Your task to perform on an android device: add a contact in the contacts app Image 0: 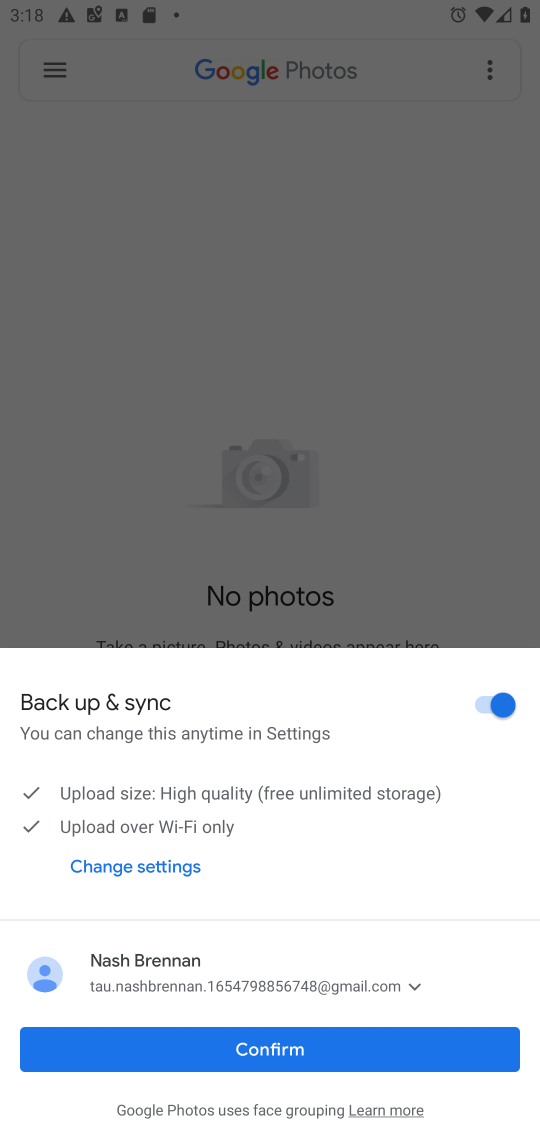
Step 0: press home button
Your task to perform on an android device: add a contact in the contacts app Image 1: 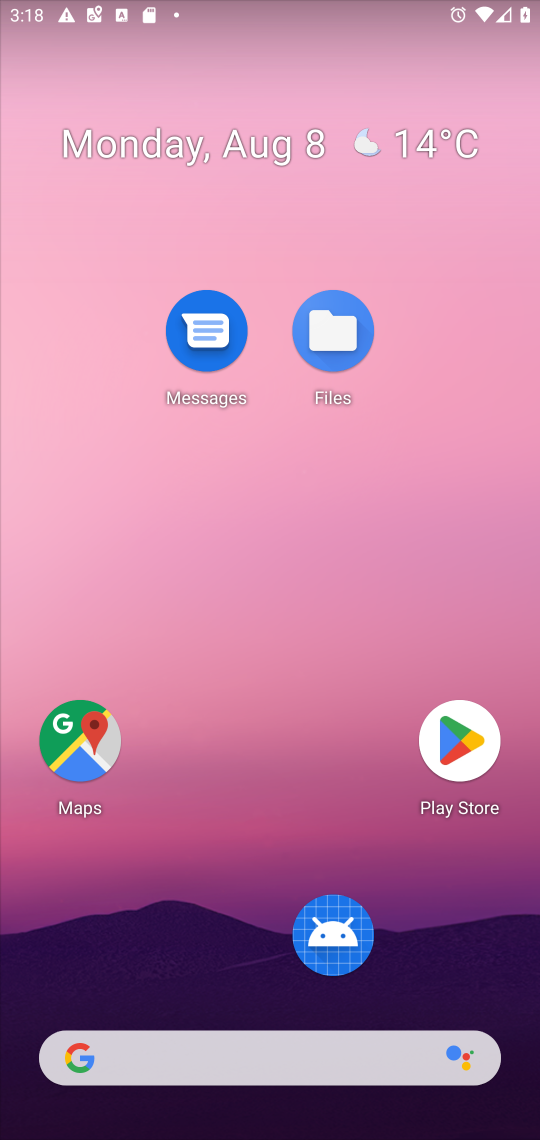
Step 1: drag from (238, 1046) to (312, 108)
Your task to perform on an android device: add a contact in the contacts app Image 2: 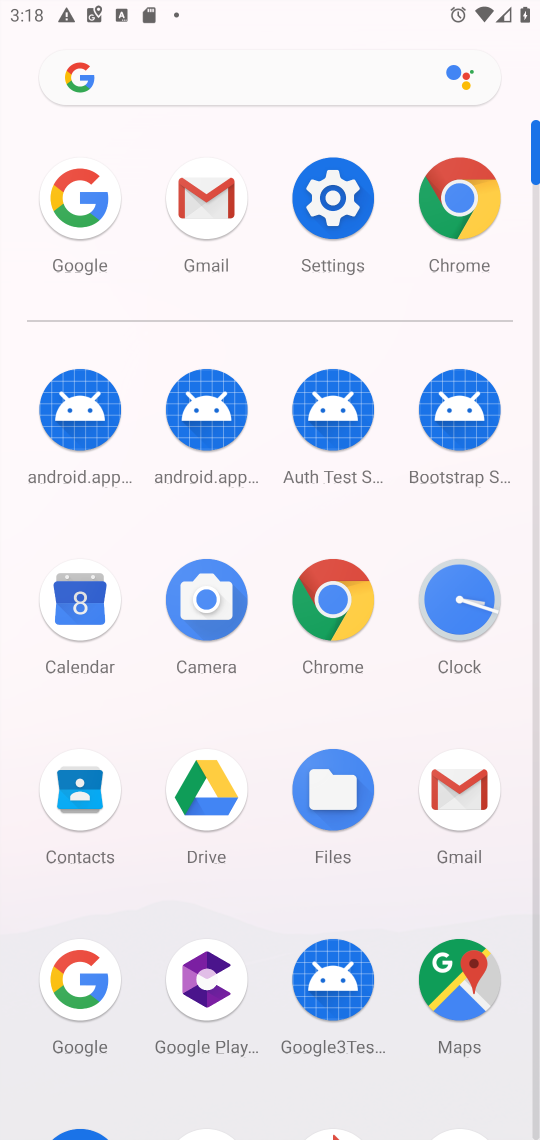
Step 2: click (51, 783)
Your task to perform on an android device: add a contact in the contacts app Image 3: 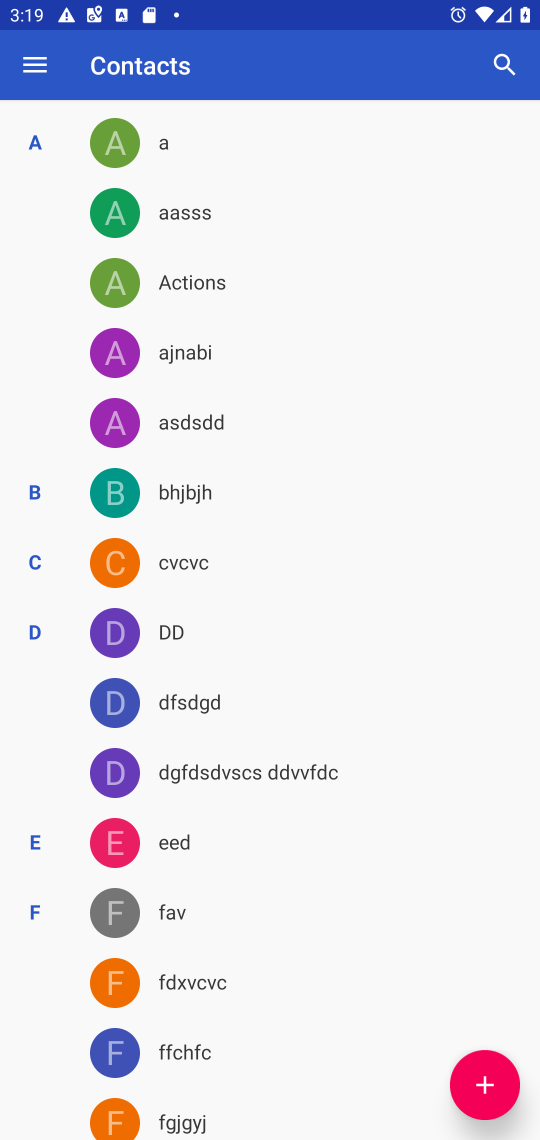
Step 3: click (482, 1078)
Your task to perform on an android device: add a contact in the contacts app Image 4: 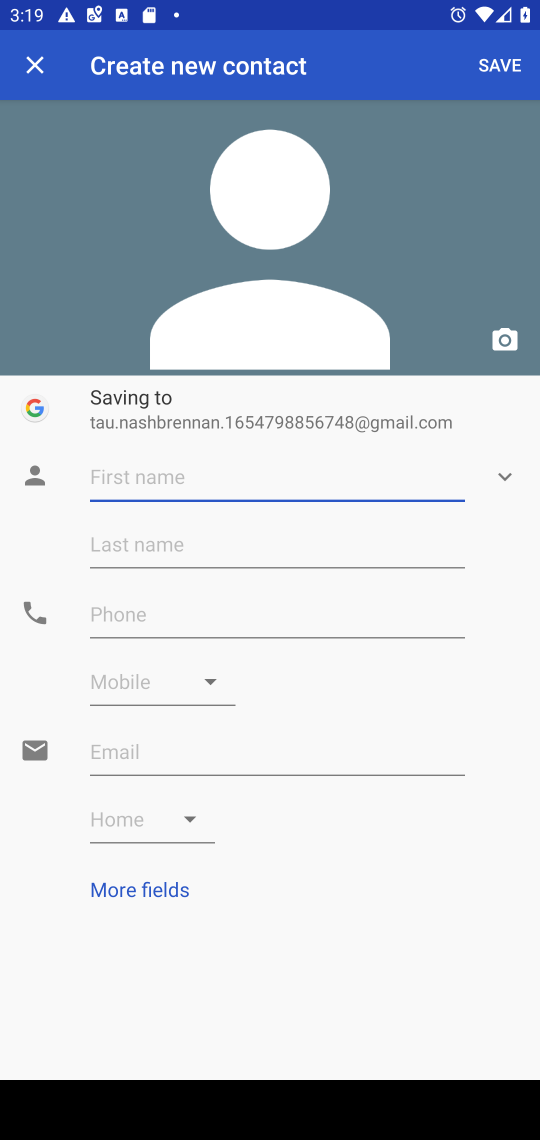
Step 4: type "ghdhgfj"
Your task to perform on an android device: add a contact in the contacts app Image 5: 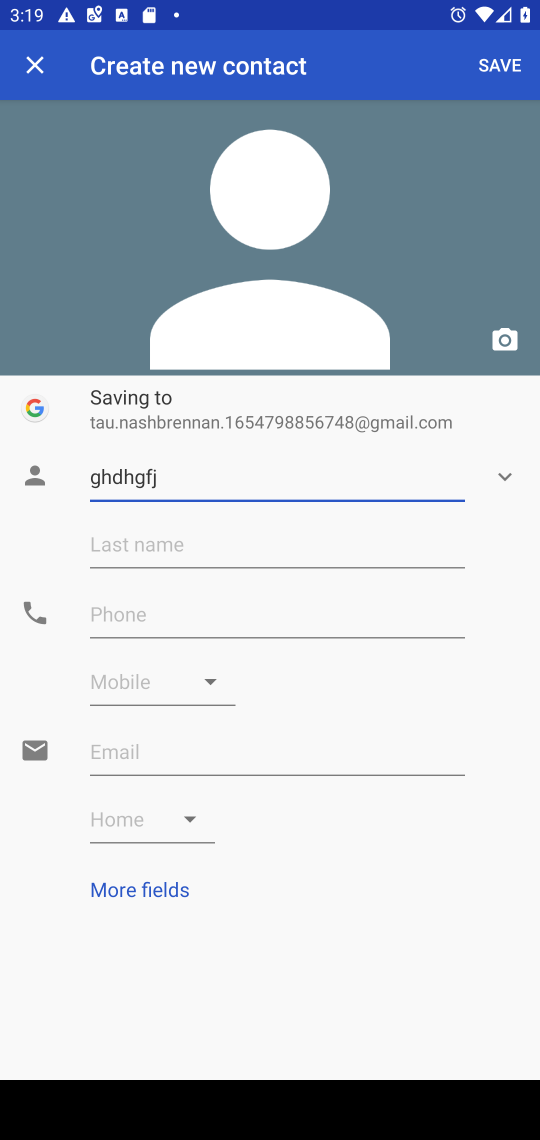
Step 5: click (292, 628)
Your task to perform on an android device: add a contact in the contacts app Image 6: 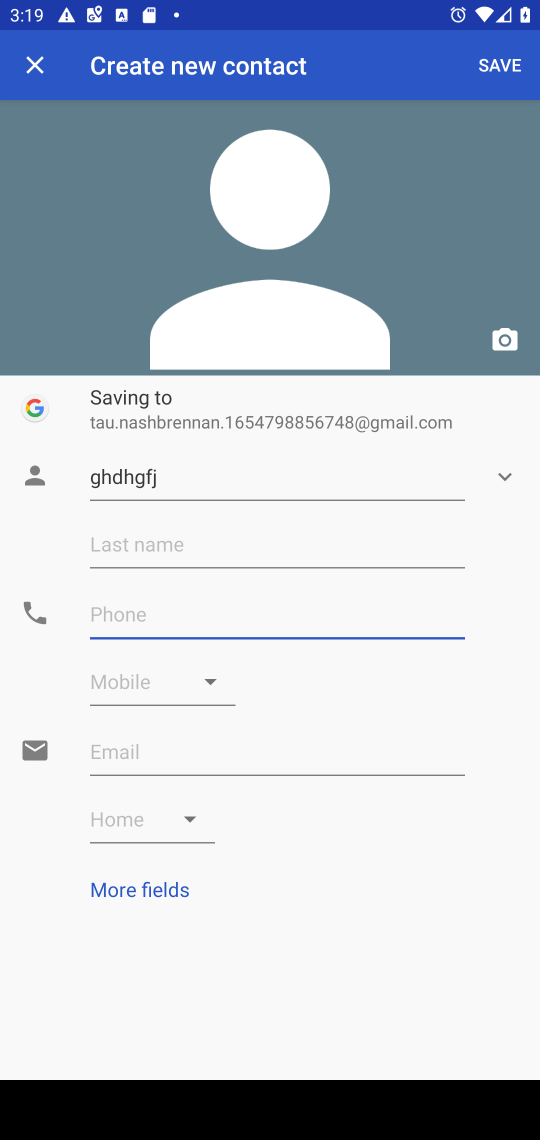
Step 6: click (287, 613)
Your task to perform on an android device: add a contact in the contacts app Image 7: 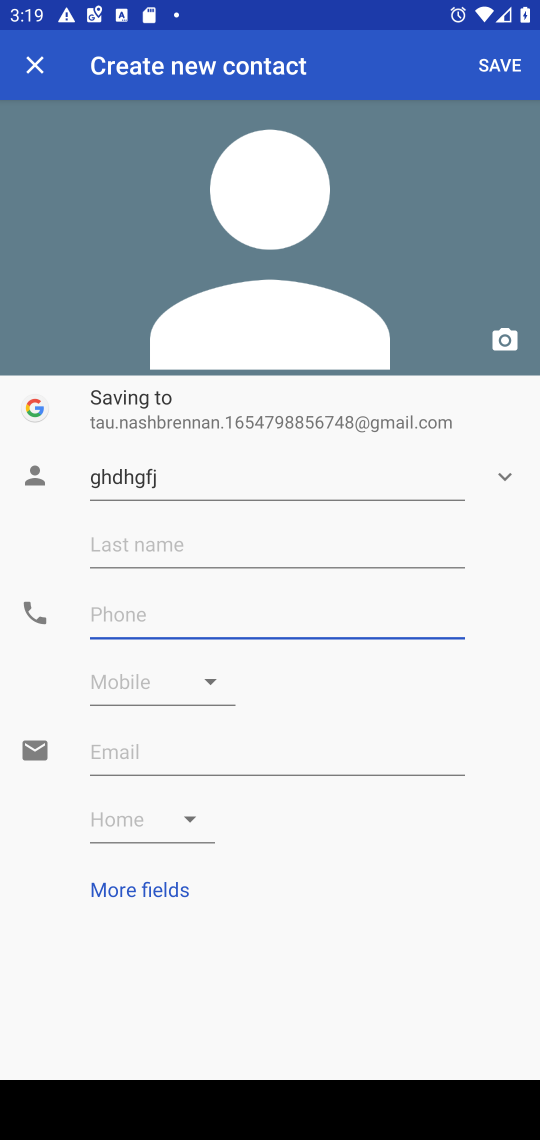
Step 7: type "8976556778"
Your task to perform on an android device: add a contact in the contacts app Image 8: 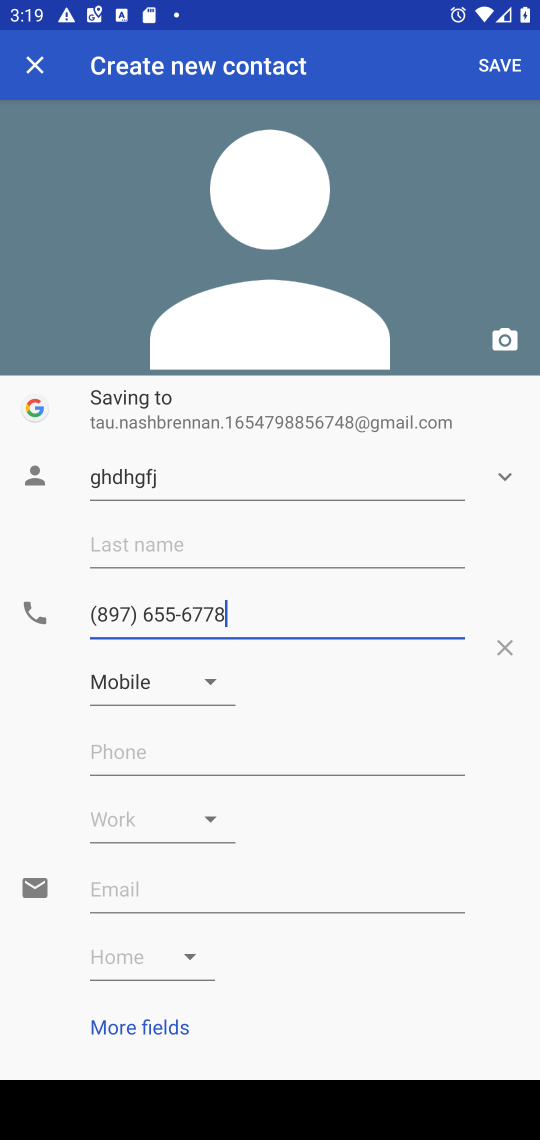
Step 8: click (513, 63)
Your task to perform on an android device: add a contact in the contacts app Image 9: 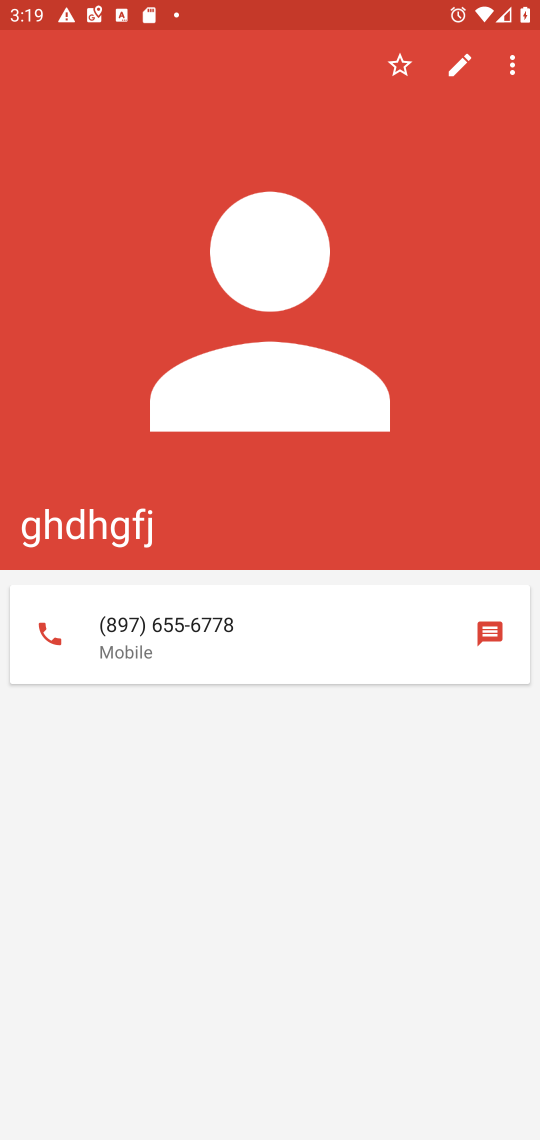
Step 9: task complete